Your task to perform on an android device: Go to notification settings Image 0: 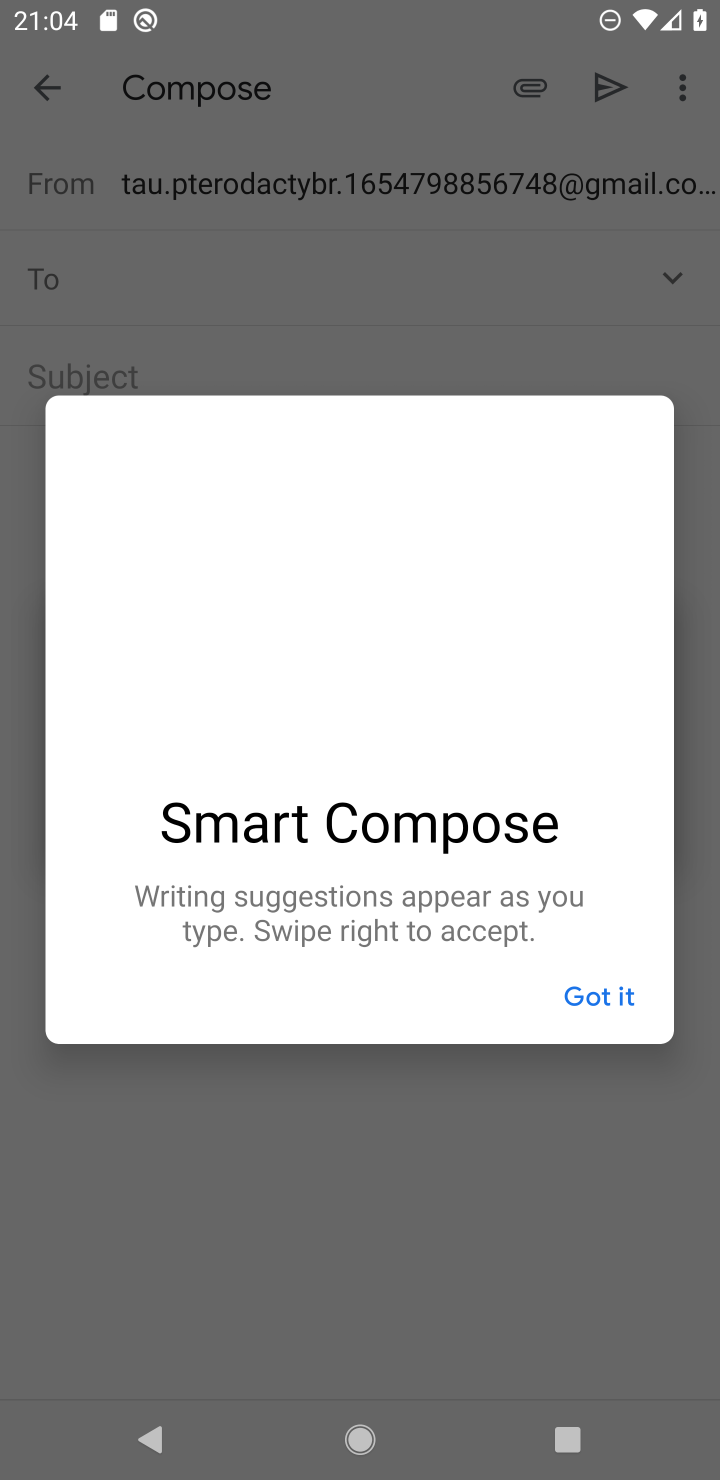
Step 0: press home button
Your task to perform on an android device: Go to notification settings Image 1: 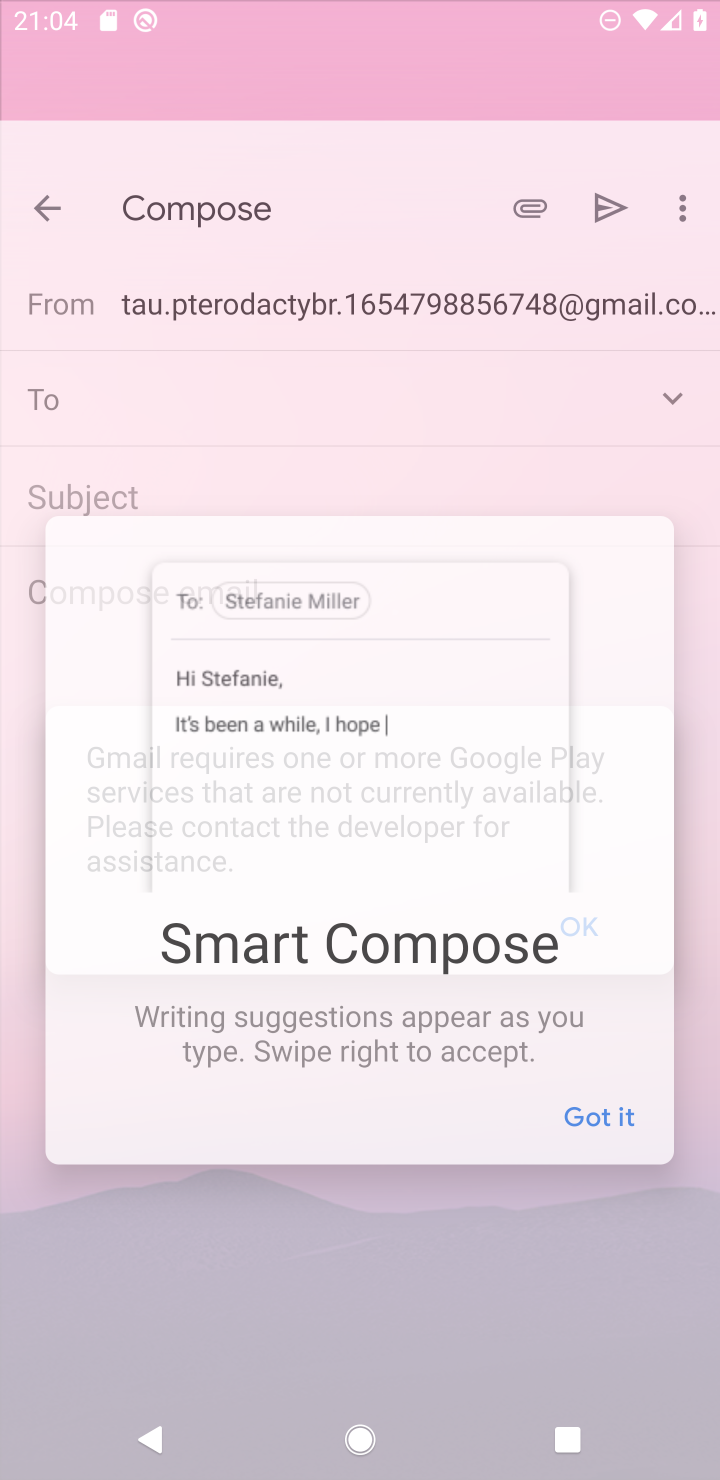
Step 1: press home button
Your task to perform on an android device: Go to notification settings Image 2: 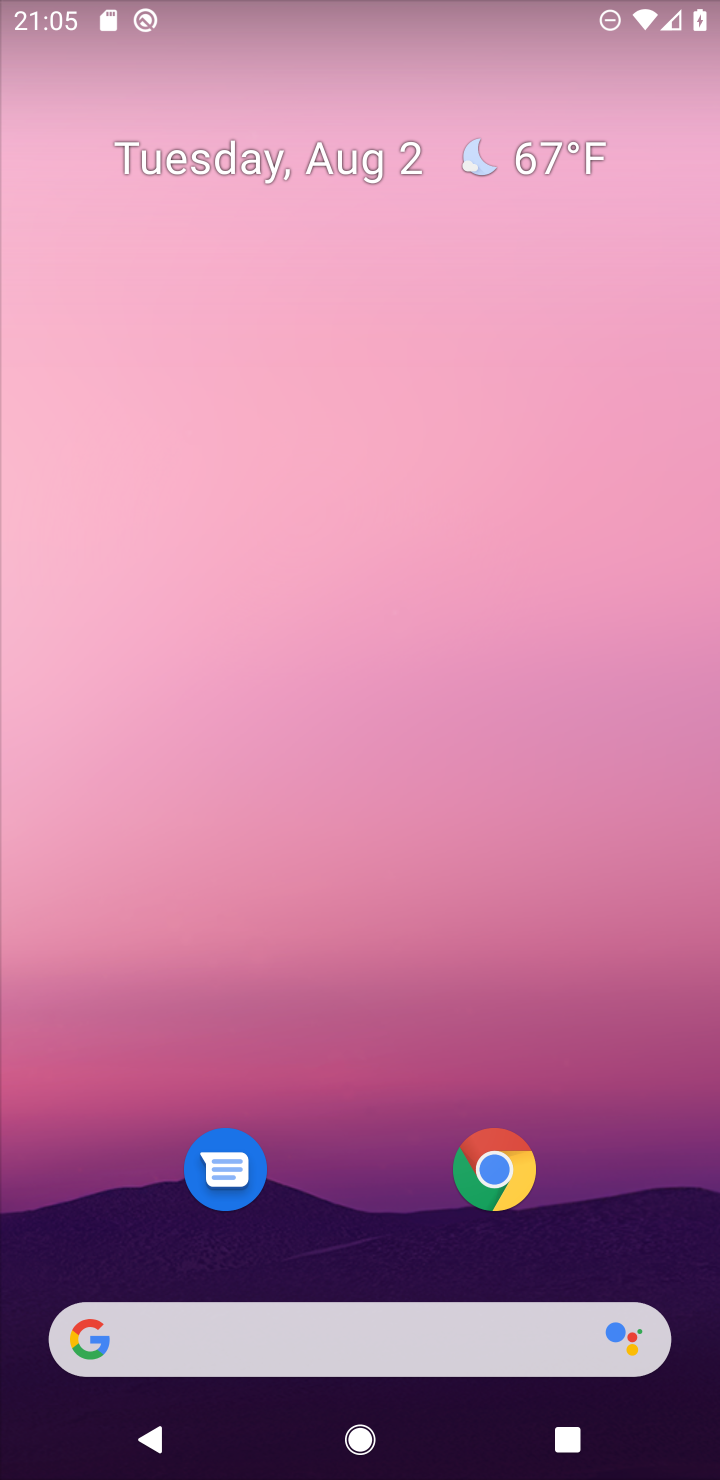
Step 2: drag from (341, 630) to (337, 210)
Your task to perform on an android device: Go to notification settings Image 3: 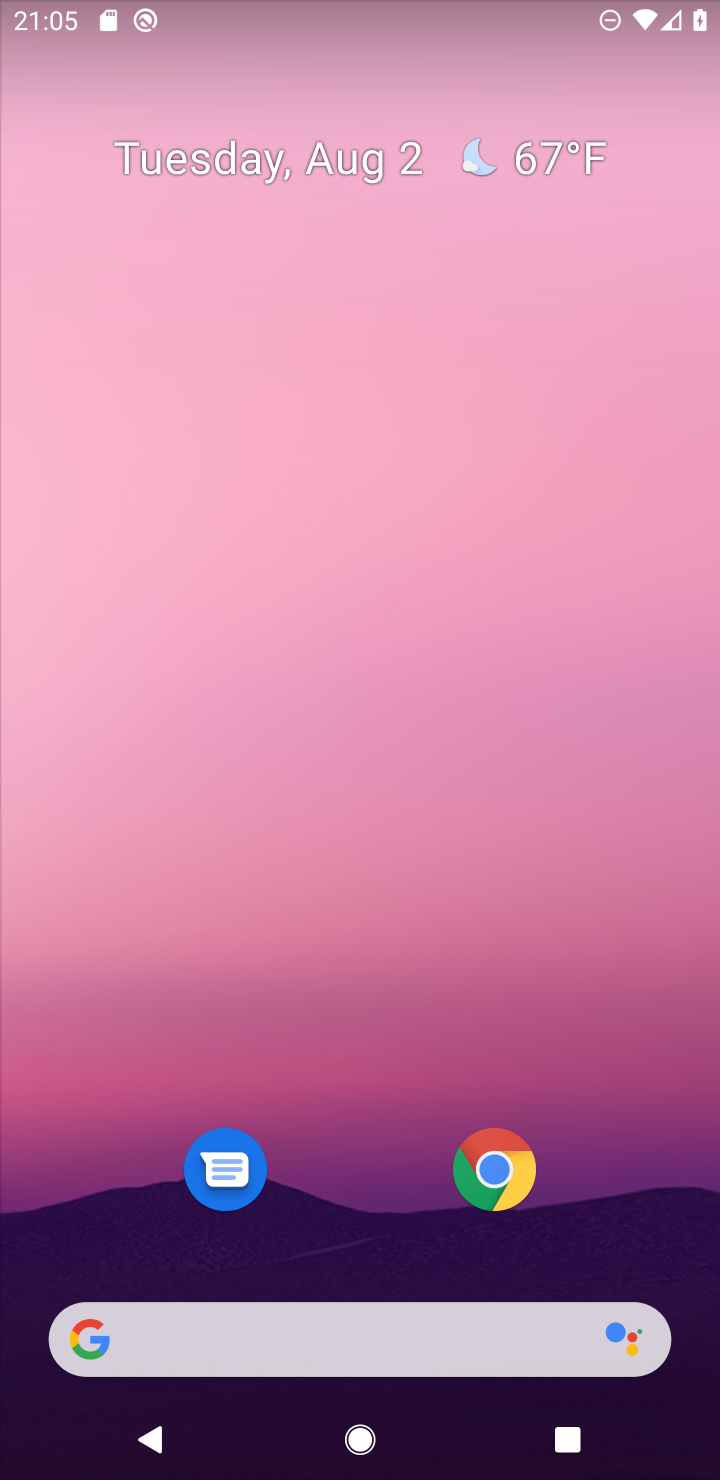
Step 3: drag from (360, 1235) to (306, 131)
Your task to perform on an android device: Go to notification settings Image 4: 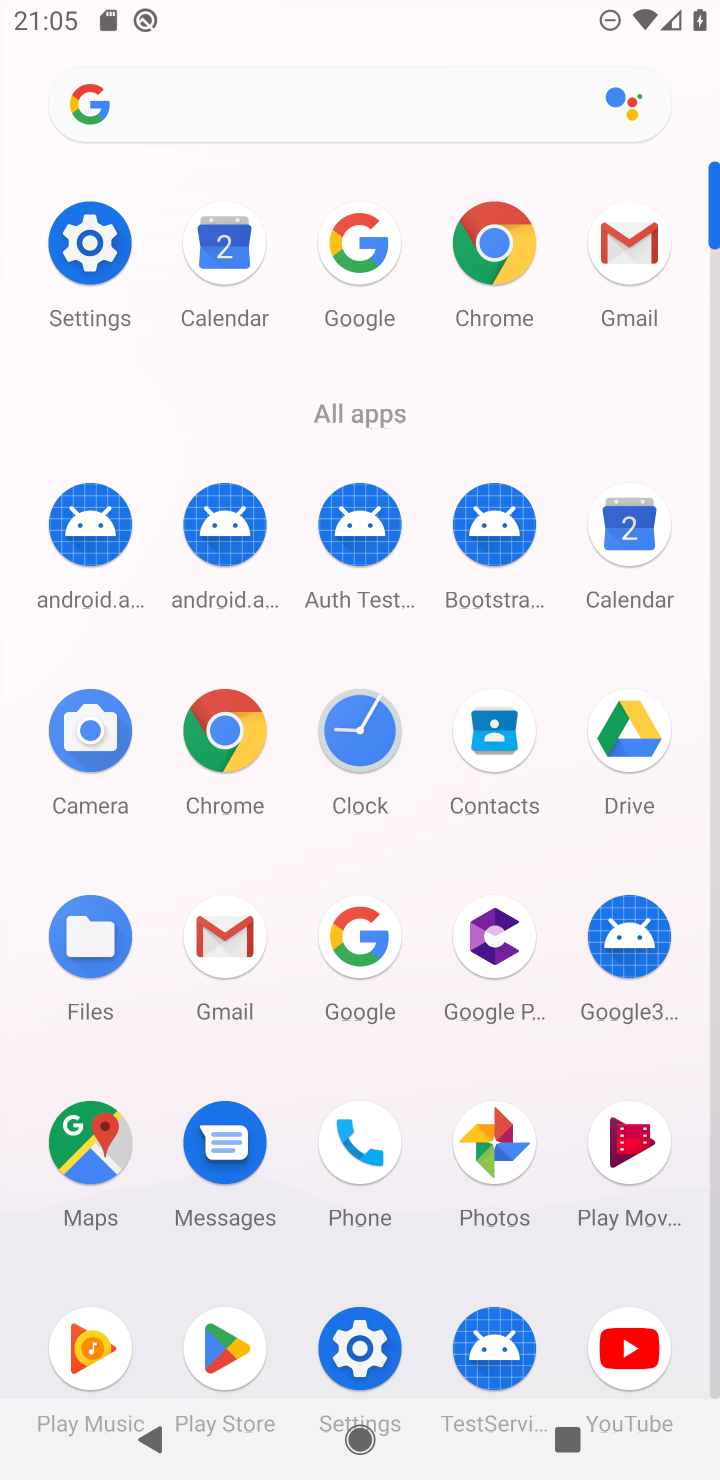
Step 4: click (76, 235)
Your task to perform on an android device: Go to notification settings Image 5: 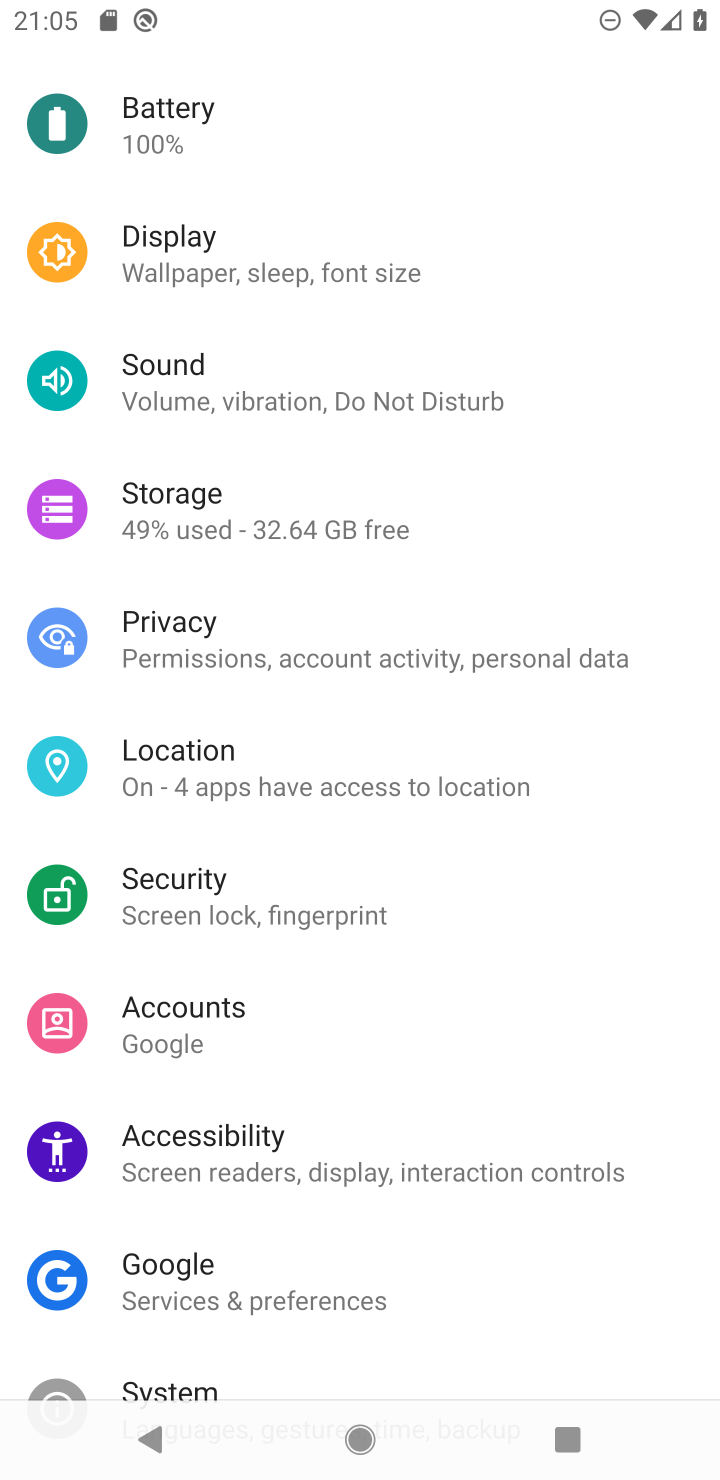
Step 5: drag from (260, 311) to (270, 1170)
Your task to perform on an android device: Go to notification settings Image 6: 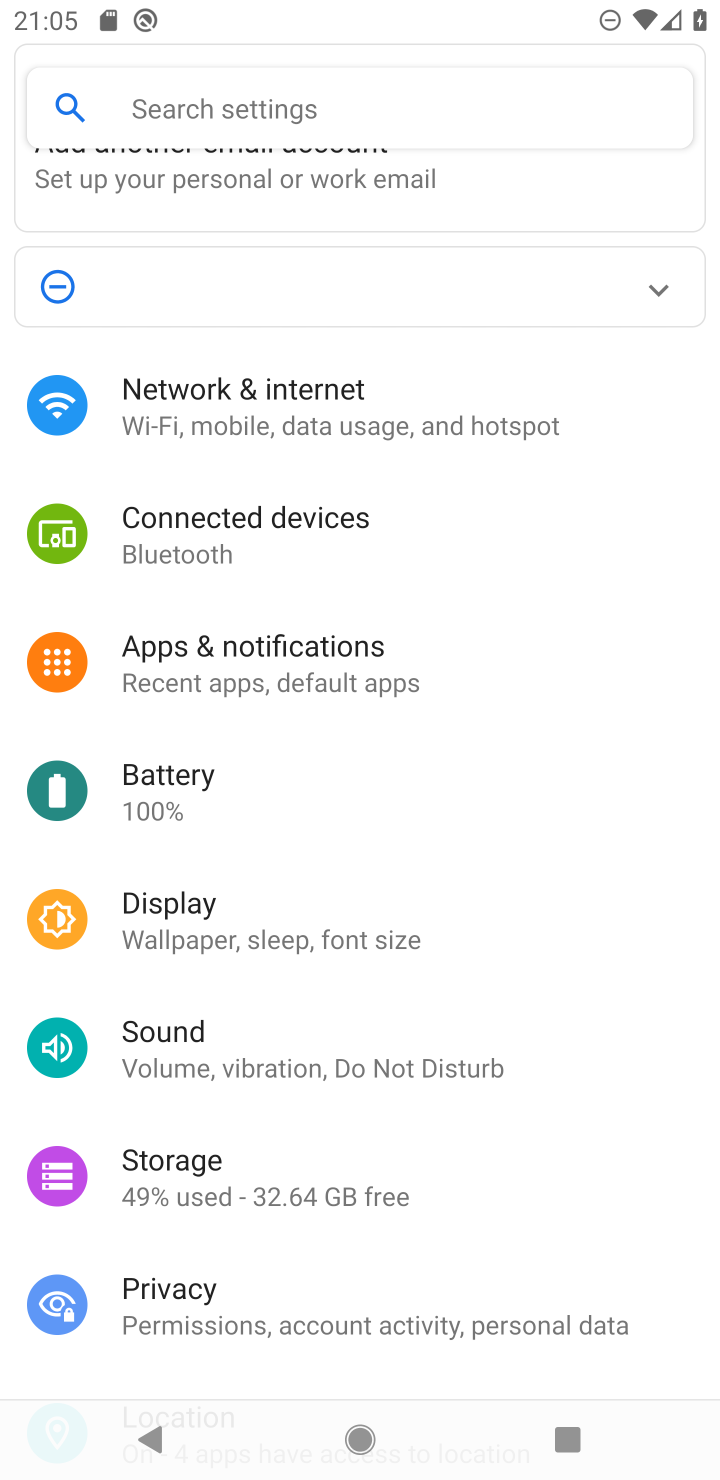
Step 6: click (246, 652)
Your task to perform on an android device: Go to notification settings Image 7: 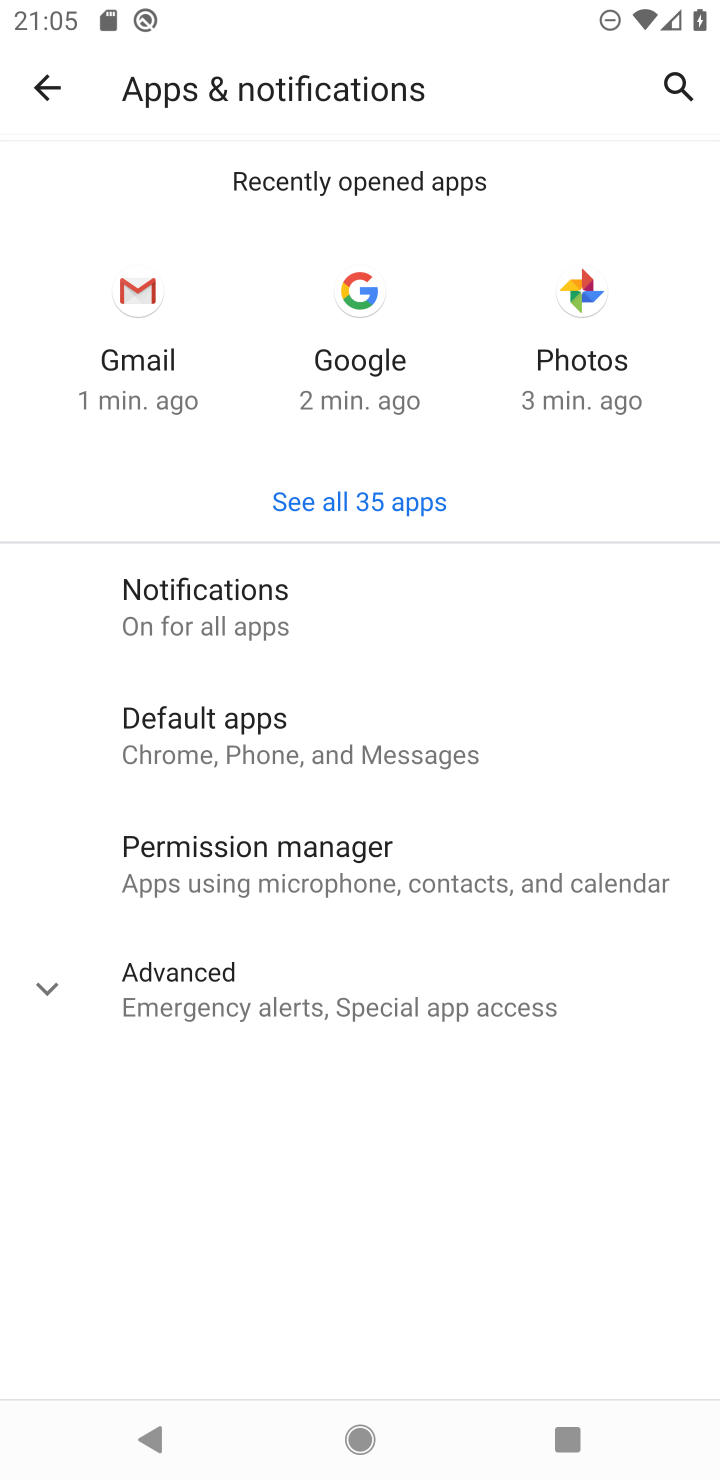
Step 7: click (193, 609)
Your task to perform on an android device: Go to notification settings Image 8: 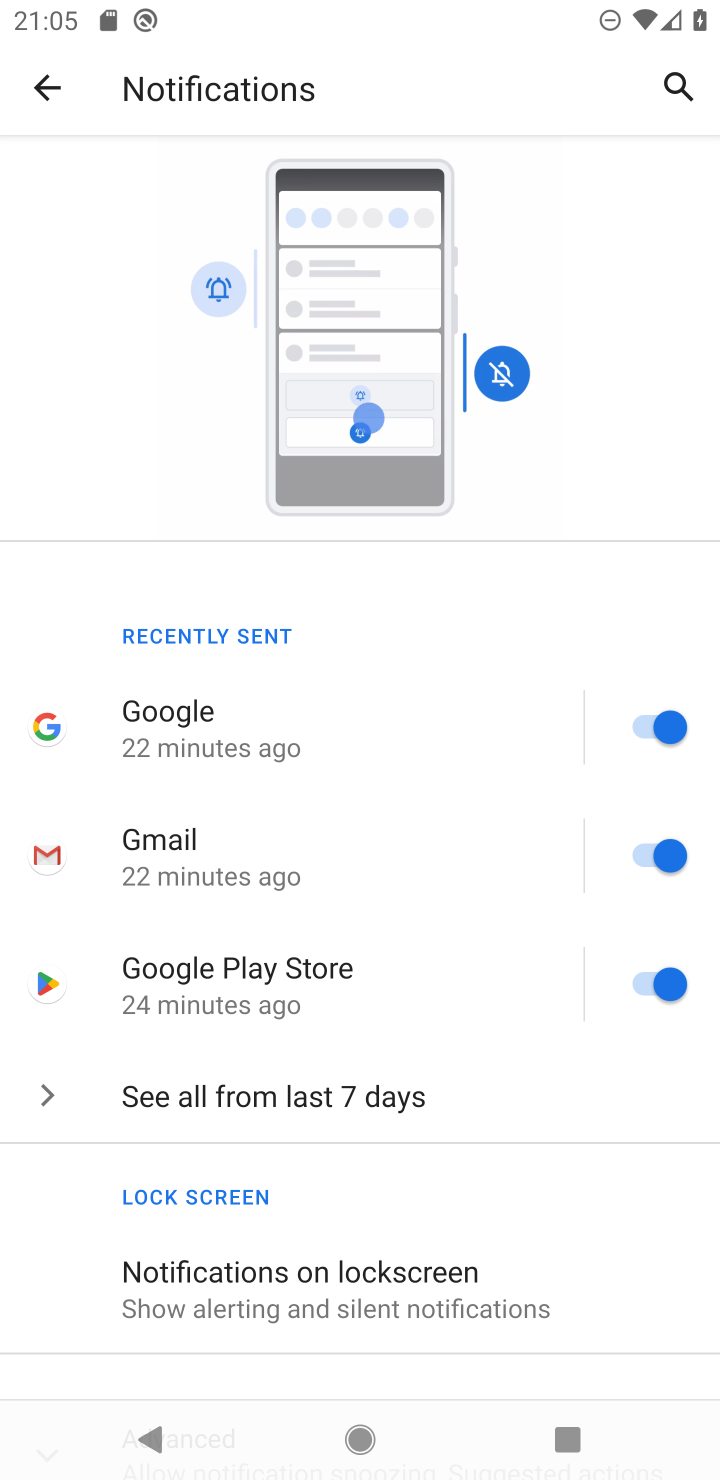
Step 8: task complete